Your task to perform on an android device: Open display settings Image 0: 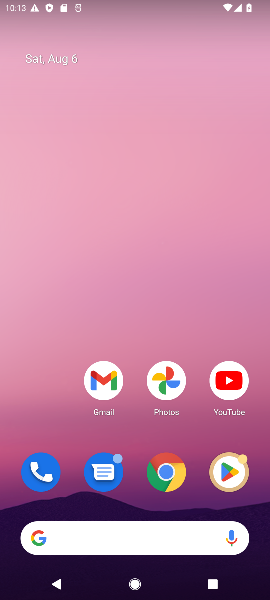
Step 0: drag from (195, 440) to (144, 3)
Your task to perform on an android device: Open display settings Image 1: 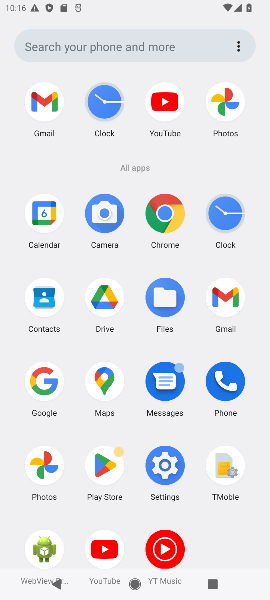
Step 1: click (151, 471)
Your task to perform on an android device: Open display settings Image 2: 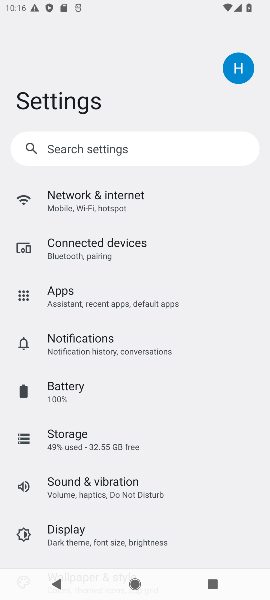
Step 2: click (72, 536)
Your task to perform on an android device: Open display settings Image 3: 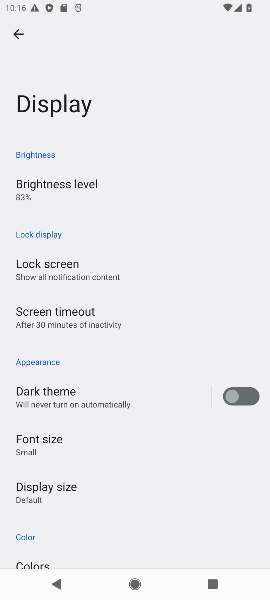
Step 3: task complete